Your task to perform on an android device: What's the weather going to be tomorrow? Image 0: 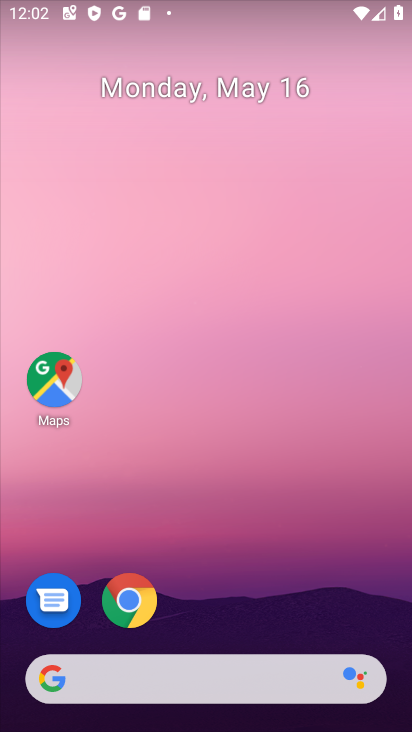
Step 0: drag from (54, 250) to (358, 223)
Your task to perform on an android device: What's the weather going to be tomorrow? Image 1: 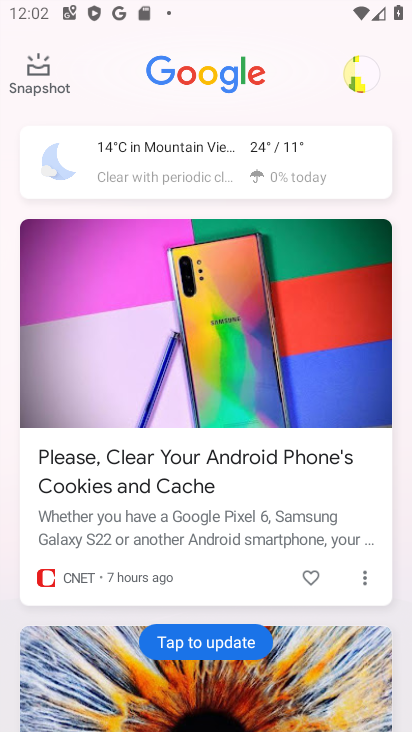
Step 1: click (214, 145)
Your task to perform on an android device: What's the weather going to be tomorrow? Image 2: 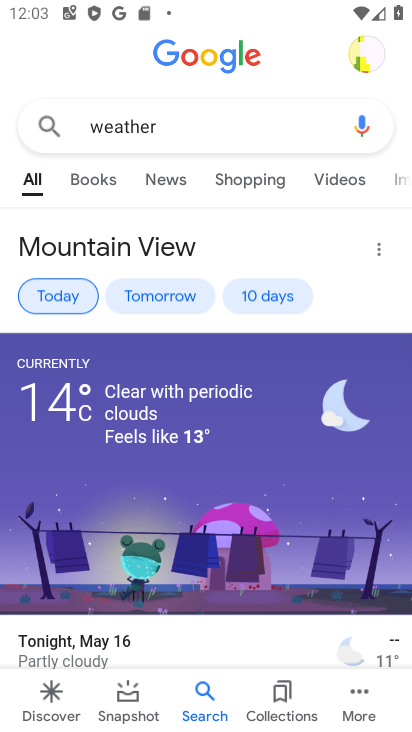
Step 2: click (163, 302)
Your task to perform on an android device: What's the weather going to be tomorrow? Image 3: 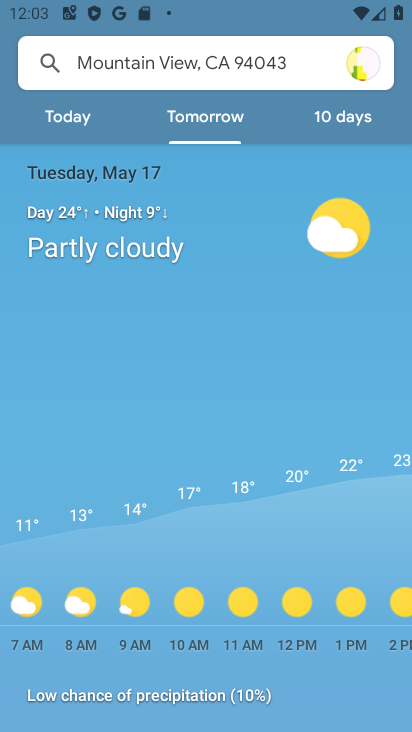
Step 3: task complete